Your task to perform on an android device: Check the weather Image 0: 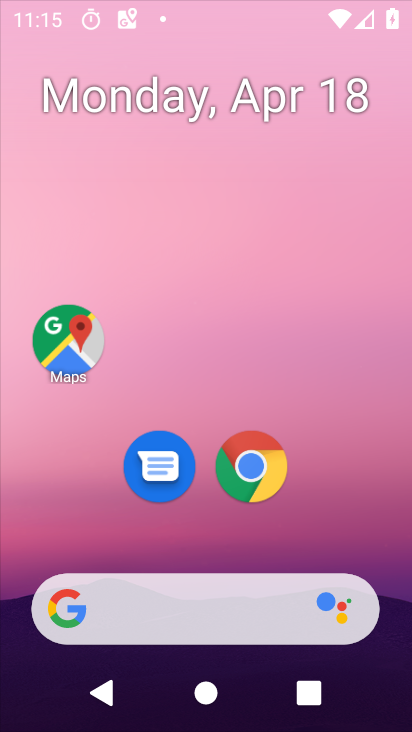
Step 0: drag from (247, 471) to (238, 128)
Your task to perform on an android device: Check the weather Image 1: 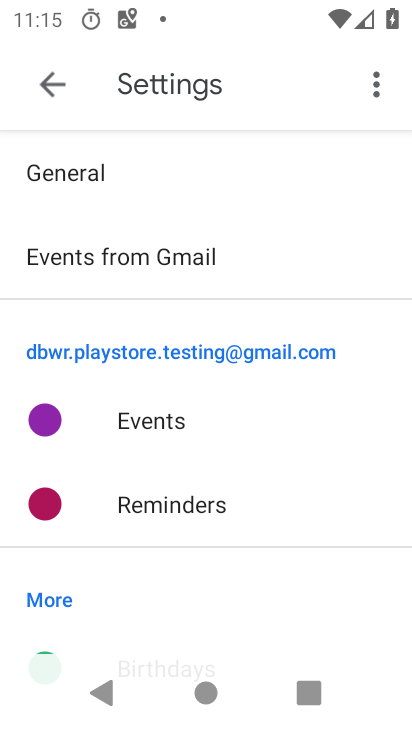
Step 1: press home button
Your task to perform on an android device: Check the weather Image 2: 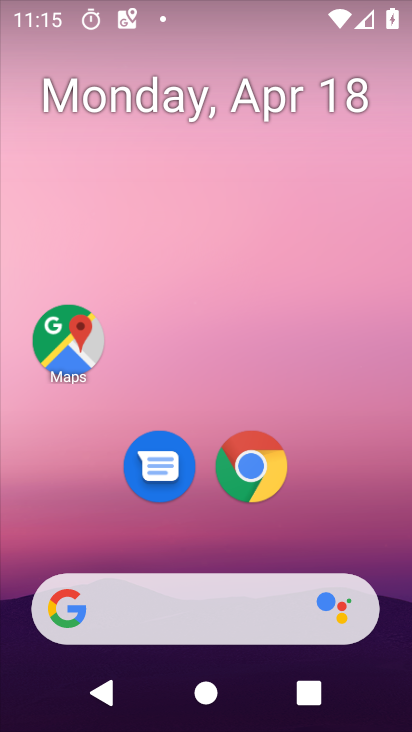
Step 2: drag from (270, 547) to (281, 229)
Your task to perform on an android device: Check the weather Image 3: 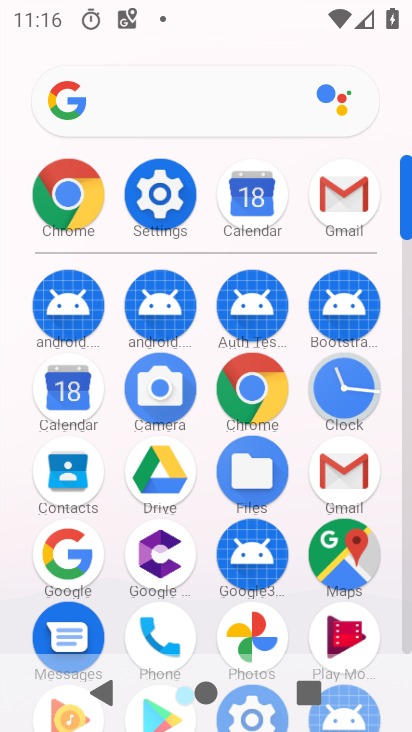
Step 3: click (403, 377)
Your task to perform on an android device: Check the weather Image 4: 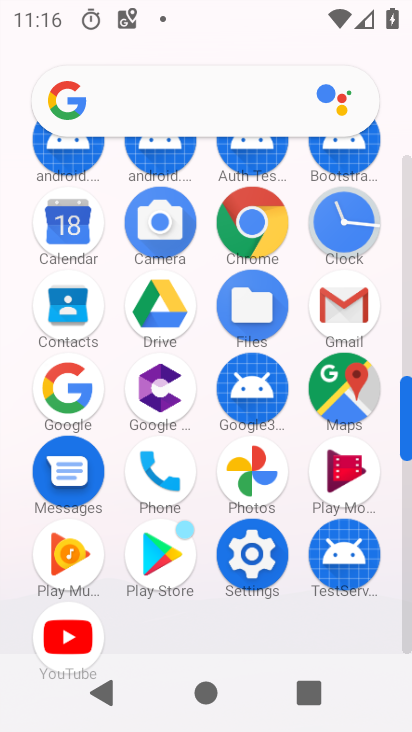
Step 4: click (89, 391)
Your task to perform on an android device: Check the weather Image 5: 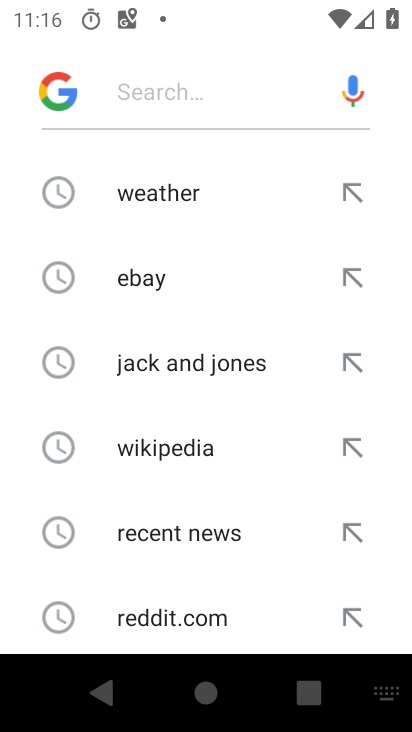
Step 5: click (230, 192)
Your task to perform on an android device: Check the weather Image 6: 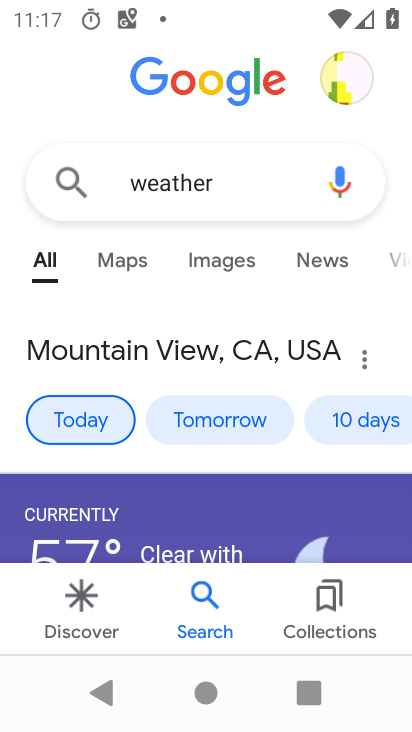
Step 6: task complete